Your task to perform on an android device: toggle improve location accuracy Image 0: 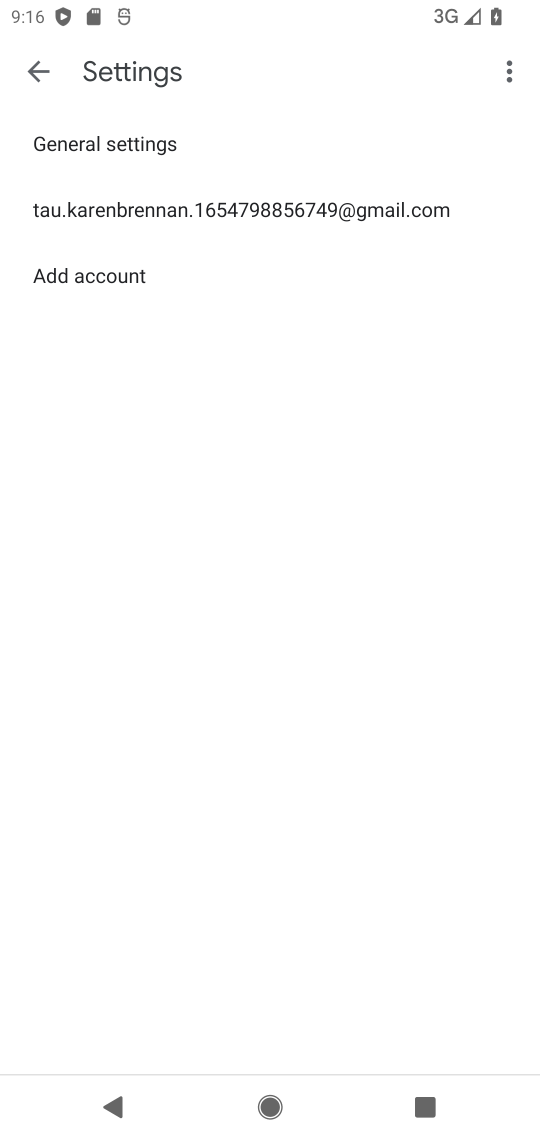
Step 0: press home button
Your task to perform on an android device: toggle improve location accuracy Image 1: 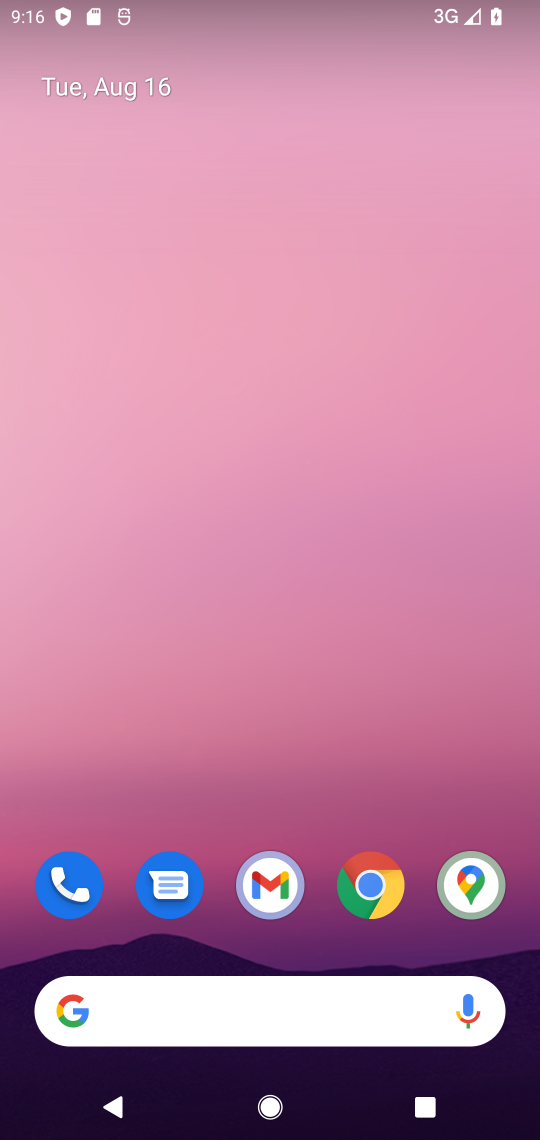
Step 1: drag from (274, 953) to (274, 22)
Your task to perform on an android device: toggle improve location accuracy Image 2: 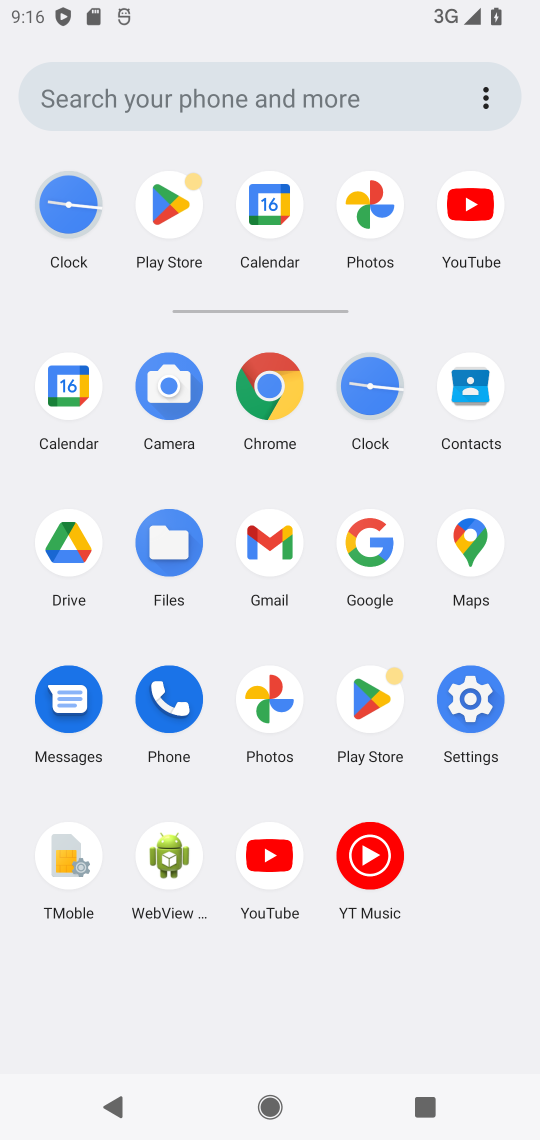
Step 2: click (472, 698)
Your task to perform on an android device: toggle improve location accuracy Image 3: 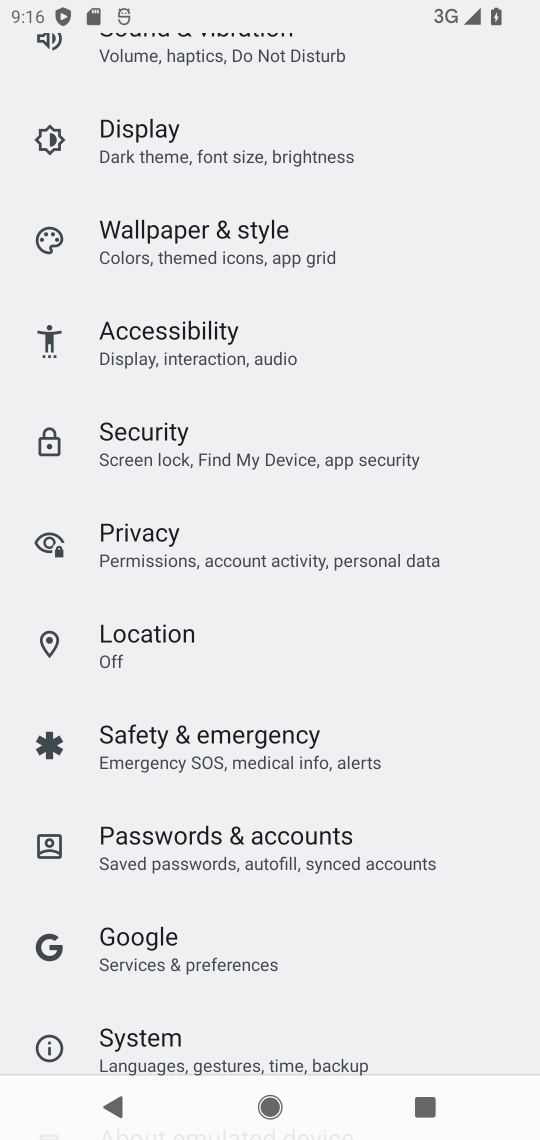
Step 3: click (101, 672)
Your task to perform on an android device: toggle improve location accuracy Image 4: 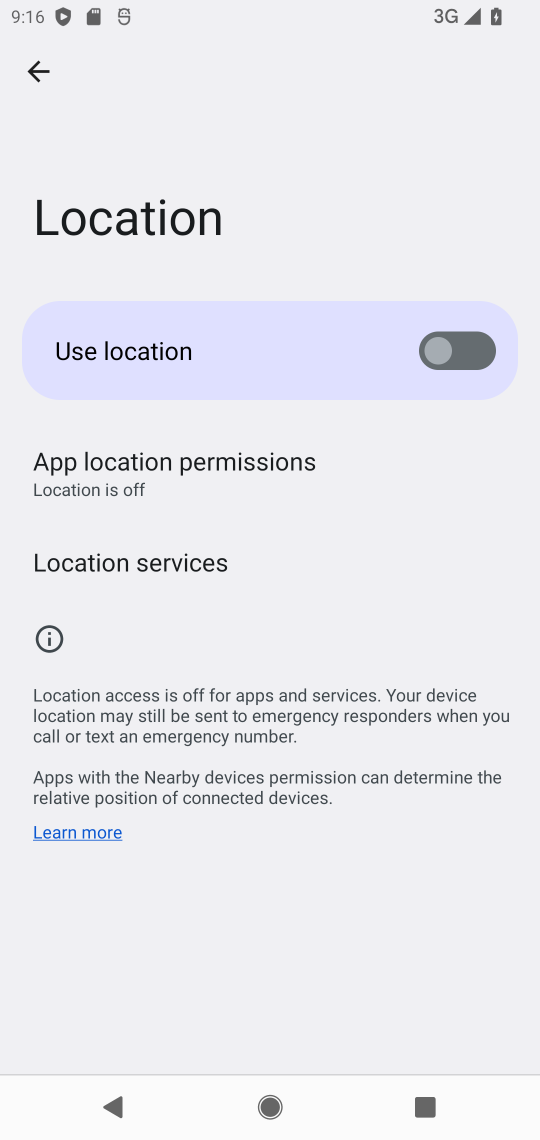
Step 4: click (173, 560)
Your task to perform on an android device: toggle improve location accuracy Image 5: 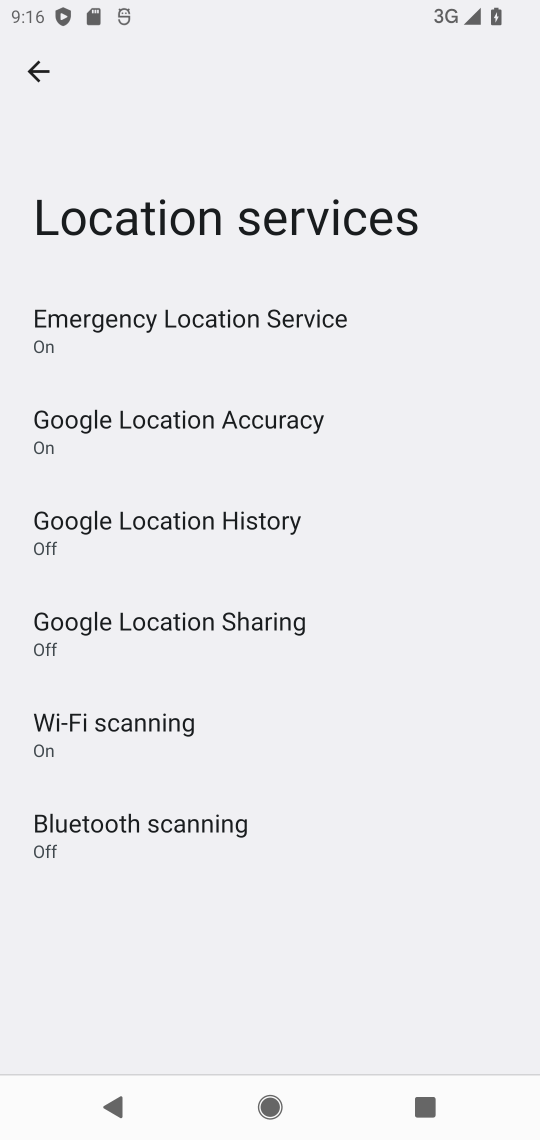
Step 5: click (95, 418)
Your task to perform on an android device: toggle improve location accuracy Image 6: 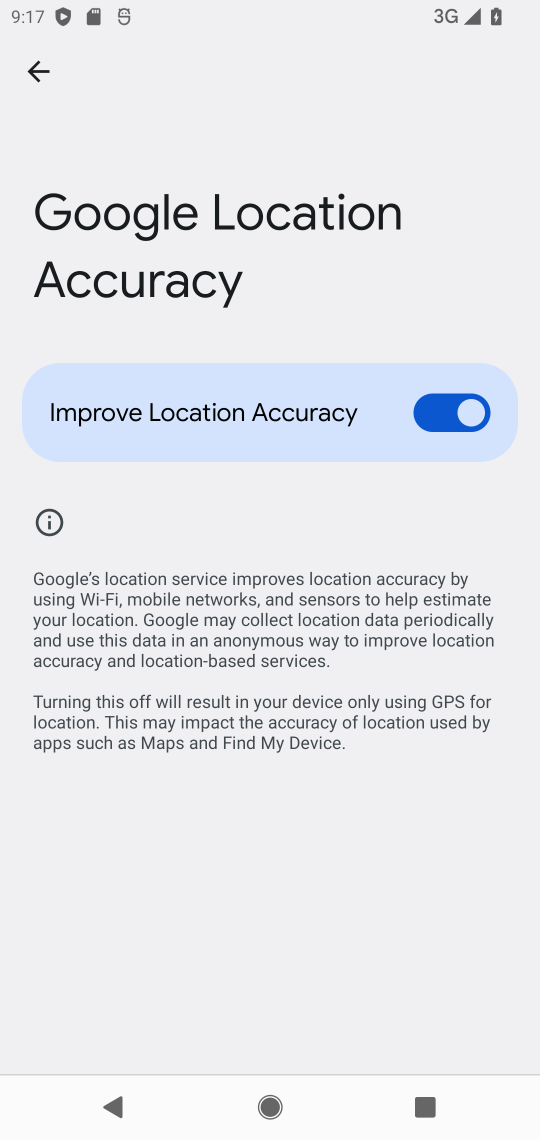
Step 6: click (420, 403)
Your task to perform on an android device: toggle improve location accuracy Image 7: 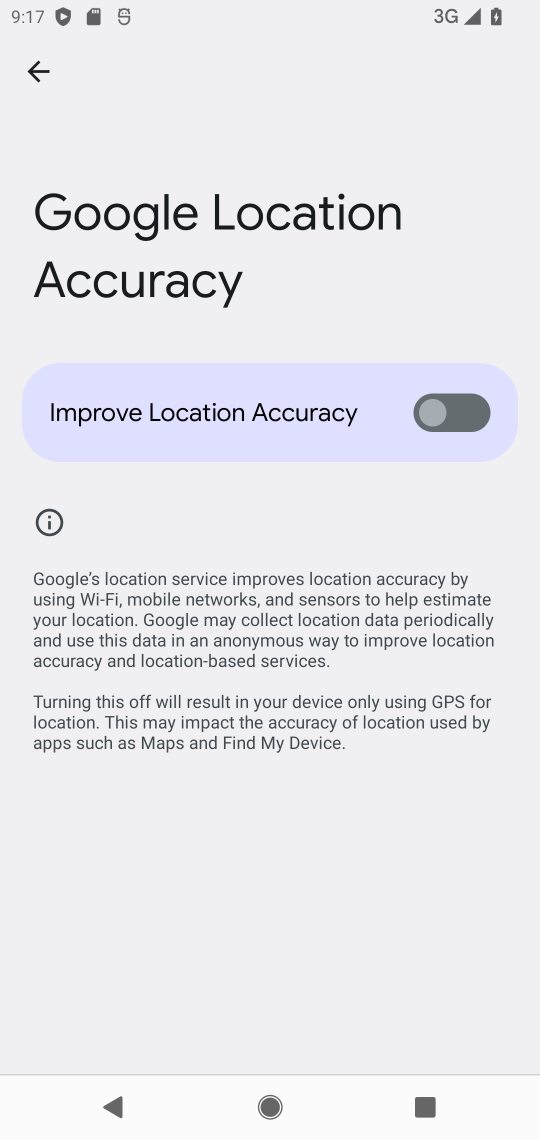
Step 7: task complete